Your task to perform on an android device: When is my next meeting? Image 0: 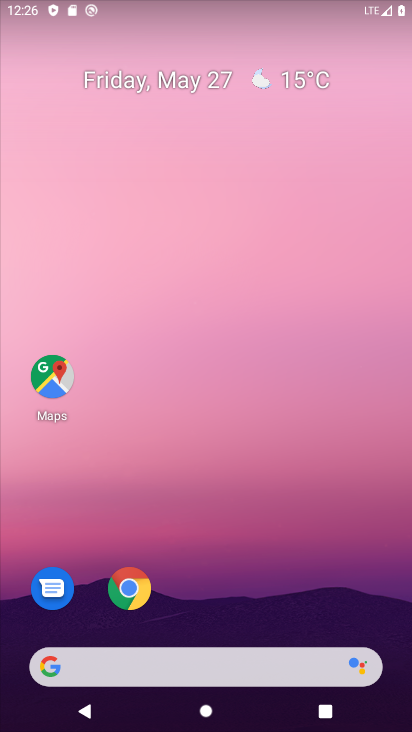
Step 0: drag from (374, 630) to (314, 46)
Your task to perform on an android device: When is my next meeting? Image 1: 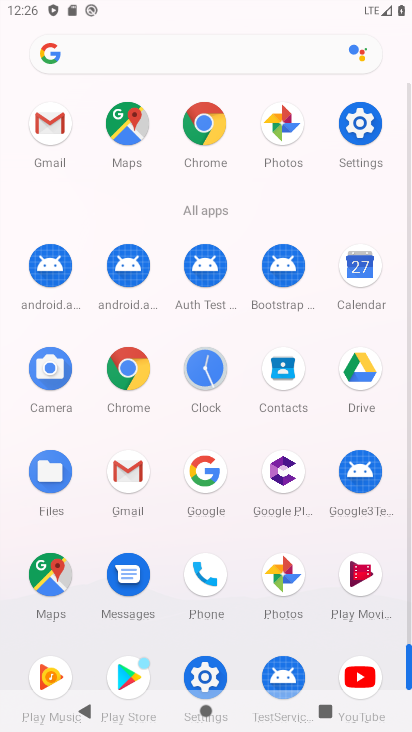
Step 1: click (363, 267)
Your task to perform on an android device: When is my next meeting? Image 2: 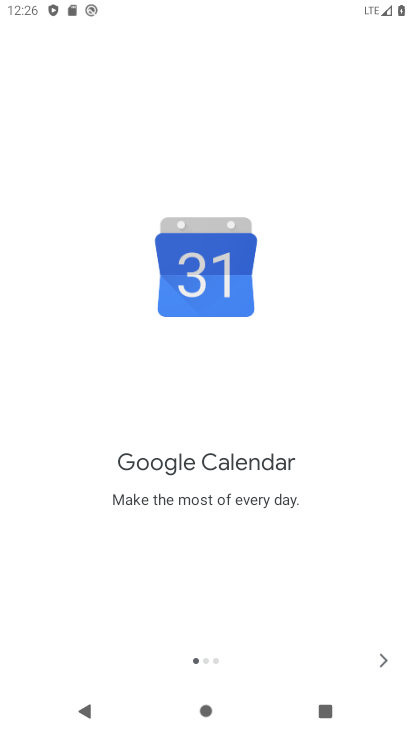
Step 2: click (386, 662)
Your task to perform on an android device: When is my next meeting? Image 3: 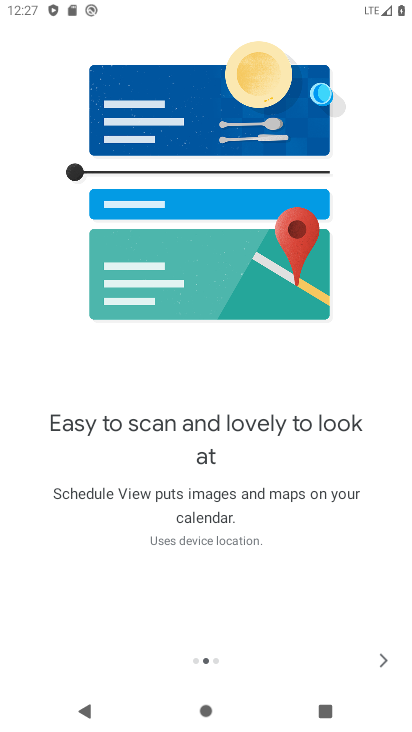
Step 3: click (386, 662)
Your task to perform on an android device: When is my next meeting? Image 4: 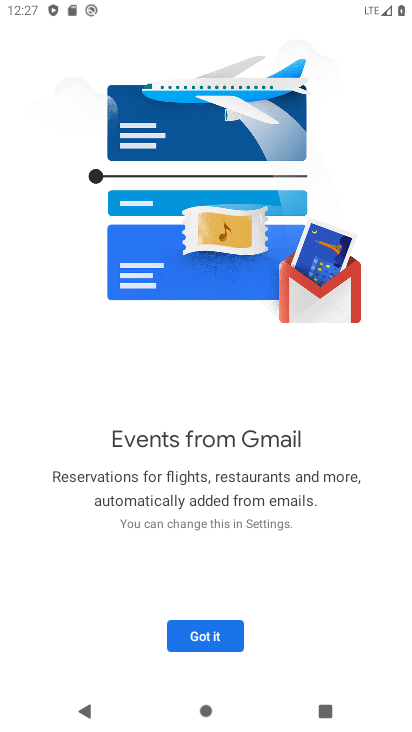
Step 4: click (195, 632)
Your task to perform on an android device: When is my next meeting? Image 5: 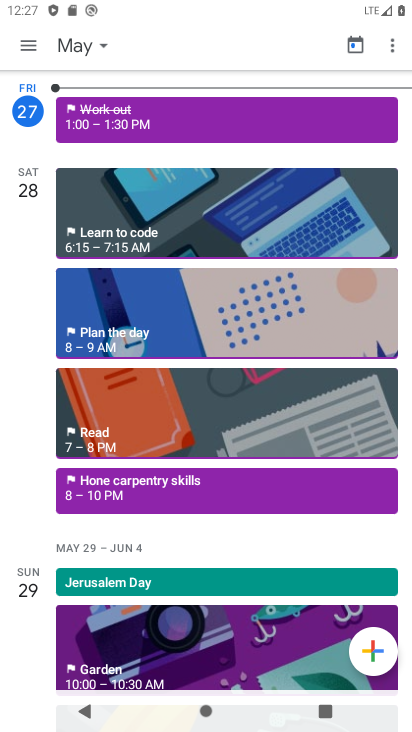
Step 5: click (27, 42)
Your task to perform on an android device: When is my next meeting? Image 6: 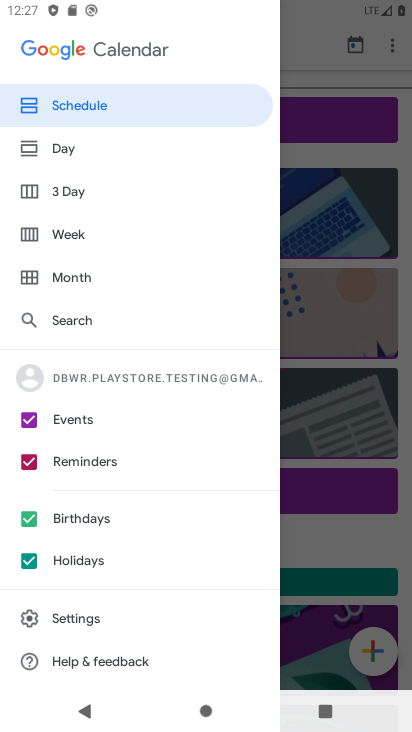
Step 6: click (129, 109)
Your task to perform on an android device: When is my next meeting? Image 7: 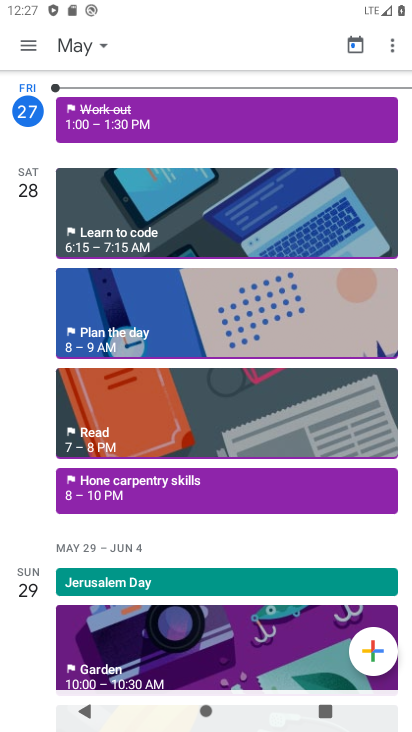
Step 7: task complete